Your task to perform on an android device: turn notification dots off Image 0: 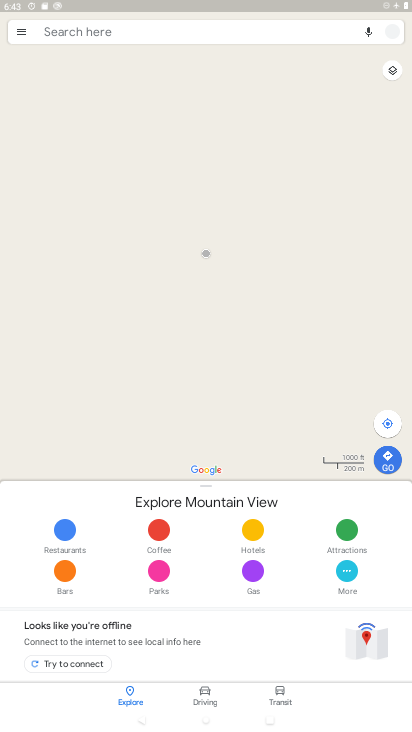
Step 0: press home button
Your task to perform on an android device: turn notification dots off Image 1: 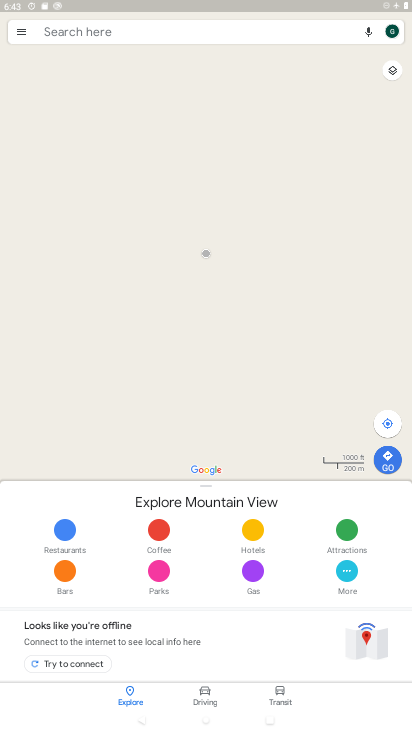
Step 1: drag from (306, 351) to (260, 35)
Your task to perform on an android device: turn notification dots off Image 2: 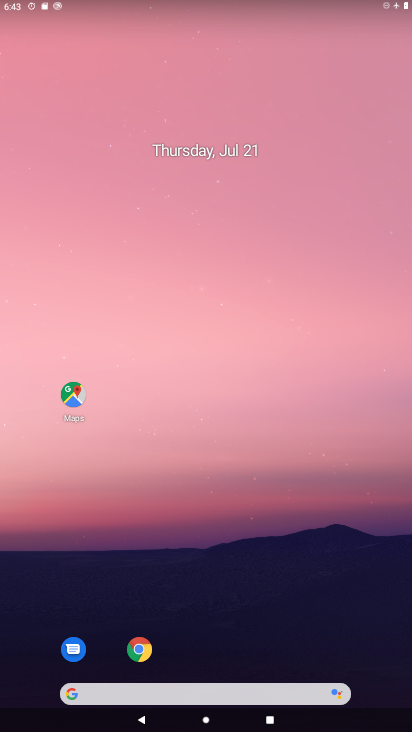
Step 2: drag from (345, 563) to (152, 8)
Your task to perform on an android device: turn notification dots off Image 3: 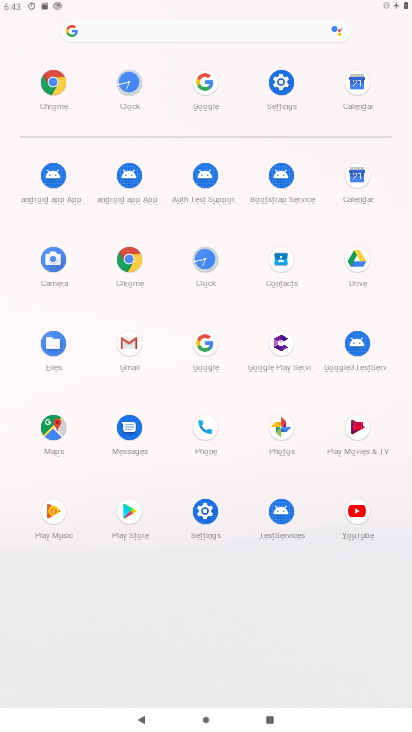
Step 3: click (274, 88)
Your task to perform on an android device: turn notification dots off Image 4: 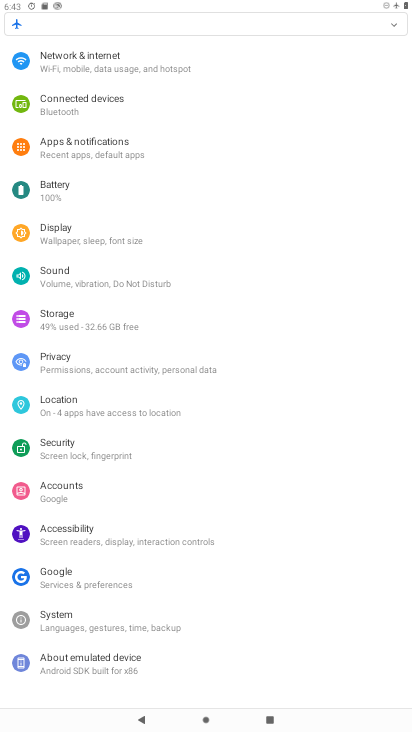
Step 4: click (98, 152)
Your task to perform on an android device: turn notification dots off Image 5: 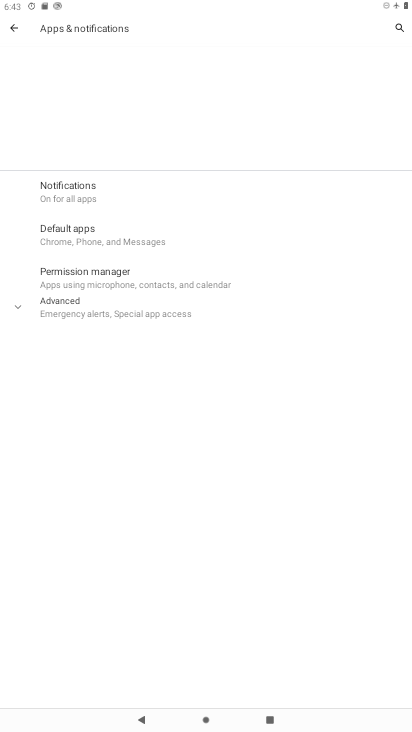
Step 5: click (79, 183)
Your task to perform on an android device: turn notification dots off Image 6: 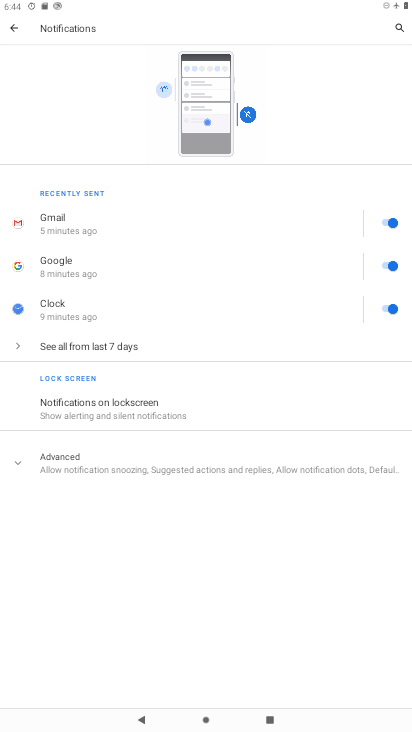
Step 6: click (34, 463)
Your task to perform on an android device: turn notification dots off Image 7: 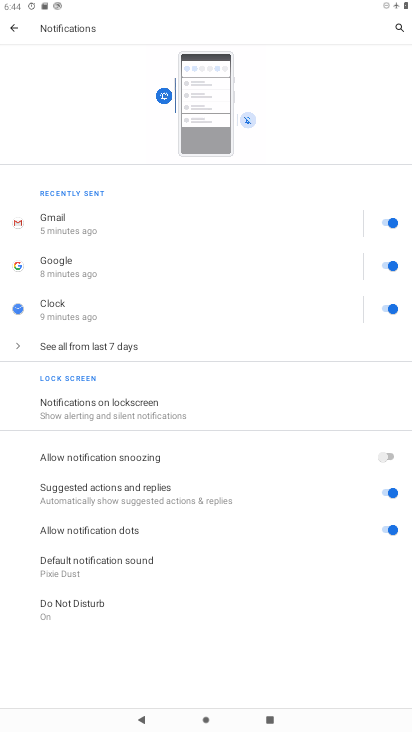
Step 7: click (173, 528)
Your task to perform on an android device: turn notification dots off Image 8: 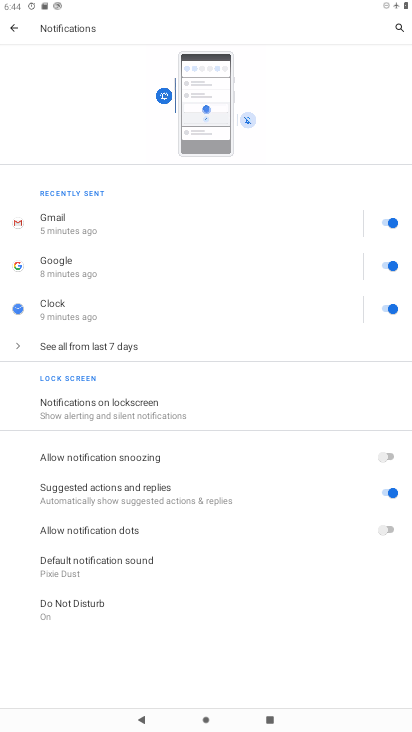
Step 8: task complete